Your task to perform on an android device: turn off location Image 0: 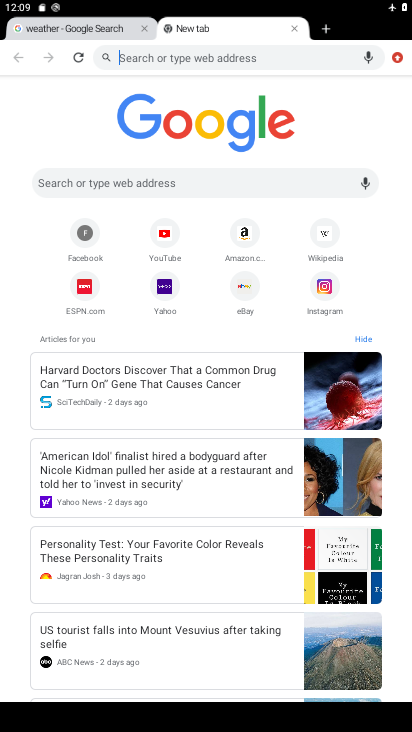
Step 0: press home button
Your task to perform on an android device: turn off location Image 1: 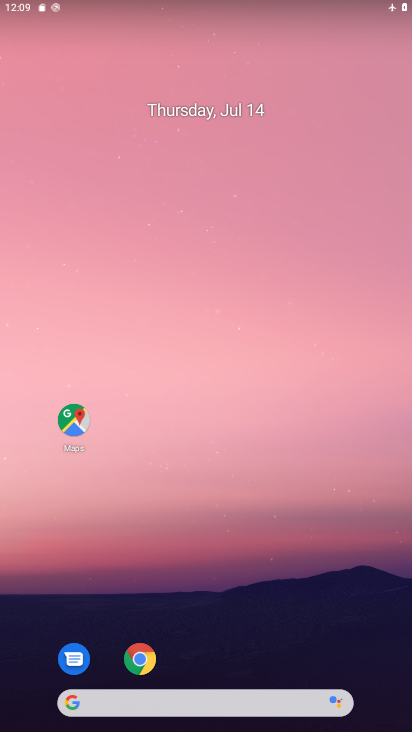
Step 1: drag from (246, 483) to (235, 7)
Your task to perform on an android device: turn off location Image 2: 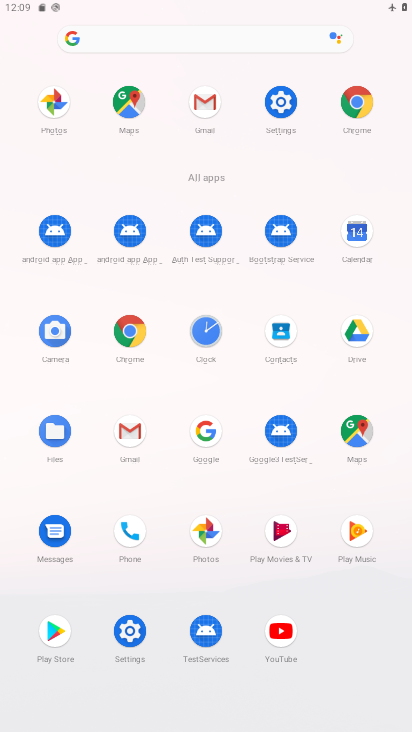
Step 2: click (283, 104)
Your task to perform on an android device: turn off location Image 3: 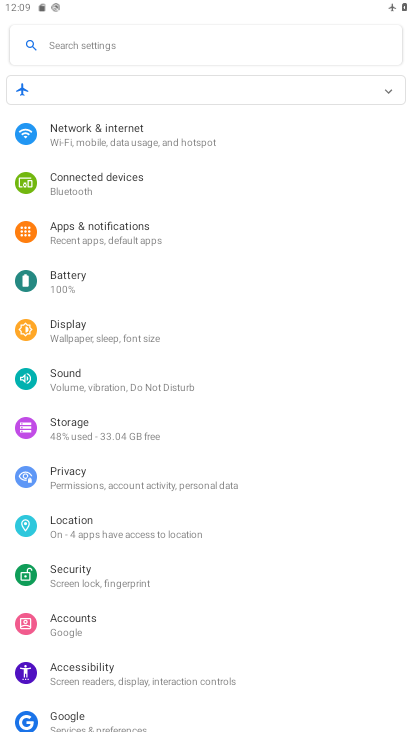
Step 3: click (104, 530)
Your task to perform on an android device: turn off location Image 4: 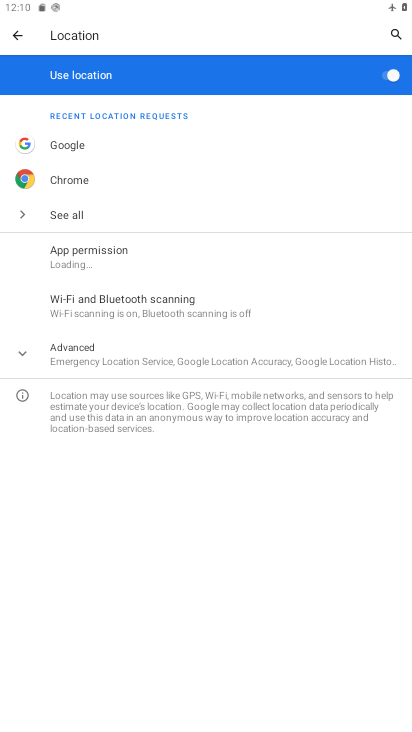
Step 4: click (390, 72)
Your task to perform on an android device: turn off location Image 5: 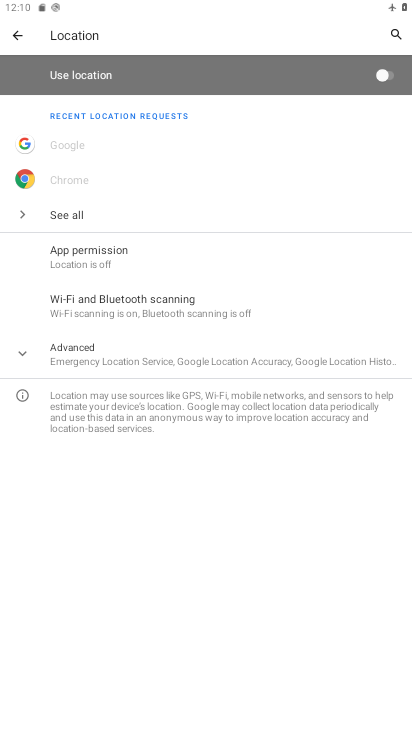
Step 5: task complete